Your task to perform on an android device: Search for "apple airpods pro" on walmart, select the first entry, and add it to the cart. Image 0: 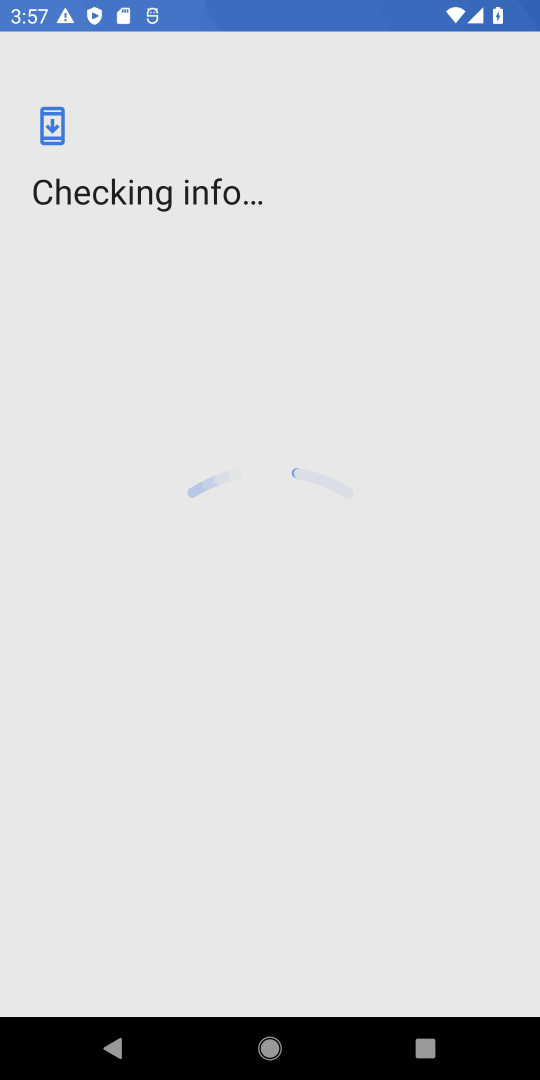
Step 0: press home button
Your task to perform on an android device: Search for "apple airpods pro" on walmart, select the first entry, and add it to the cart. Image 1: 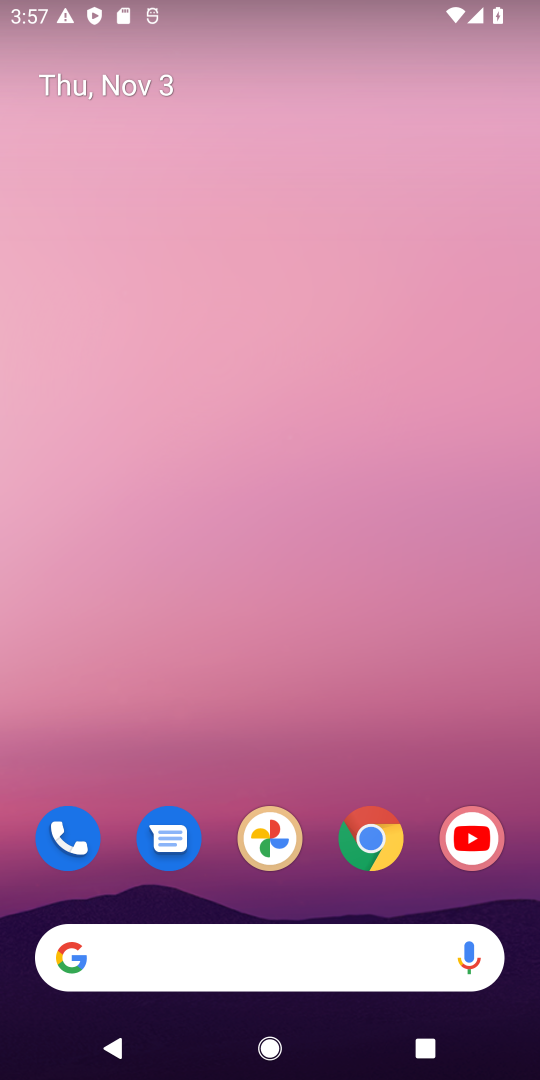
Step 1: drag from (345, 1045) to (448, 349)
Your task to perform on an android device: Search for "apple airpods pro" on walmart, select the first entry, and add it to the cart. Image 2: 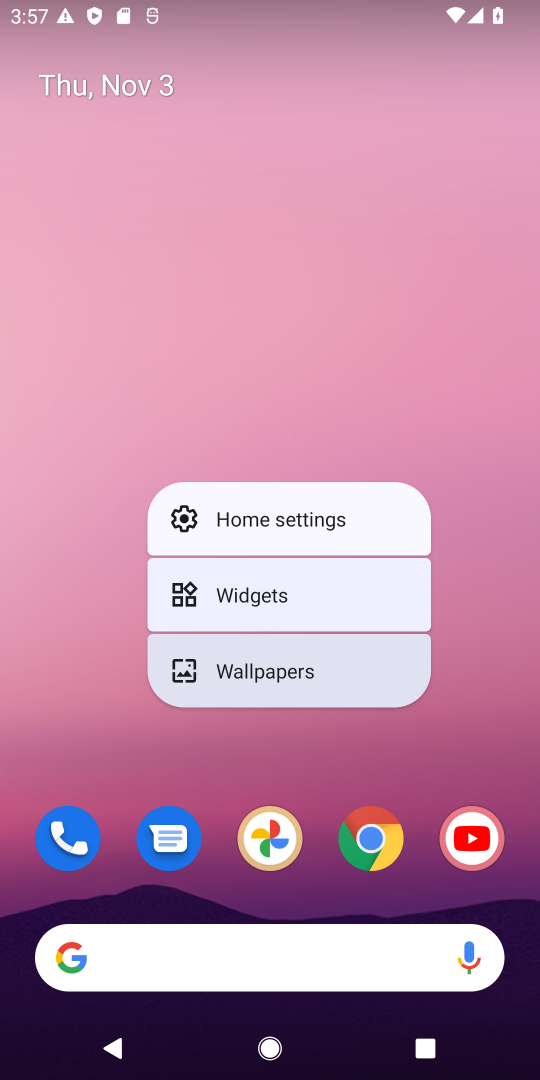
Step 2: click (409, 211)
Your task to perform on an android device: Search for "apple airpods pro" on walmart, select the first entry, and add it to the cart. Image 3: 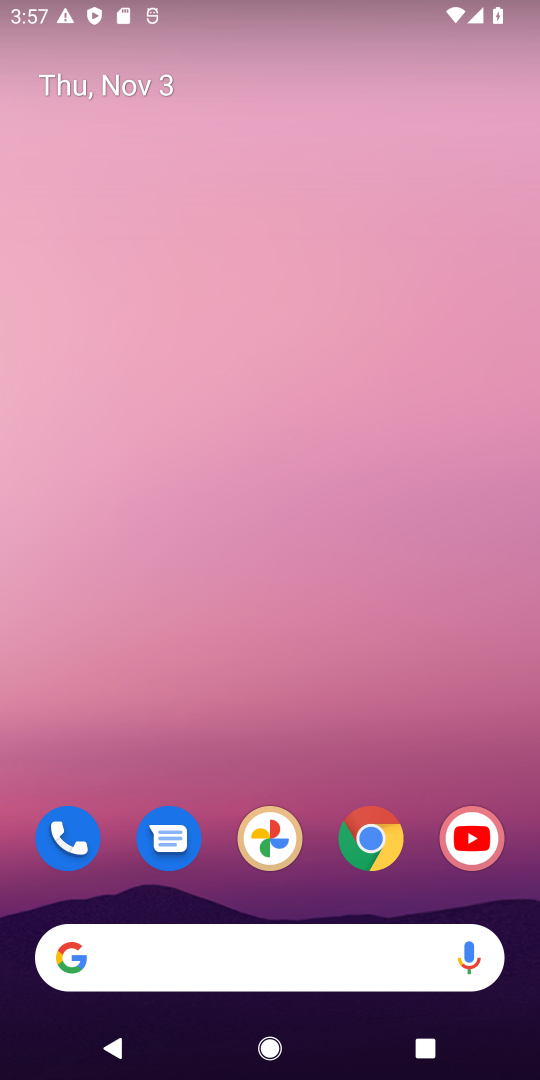
Step 3: drag from (372, 1016) to (402, 204)
Your task to perform on an android device: Search for "apple airpods pro" on walmart, select the first entry, and add it to the cart. Image 4: 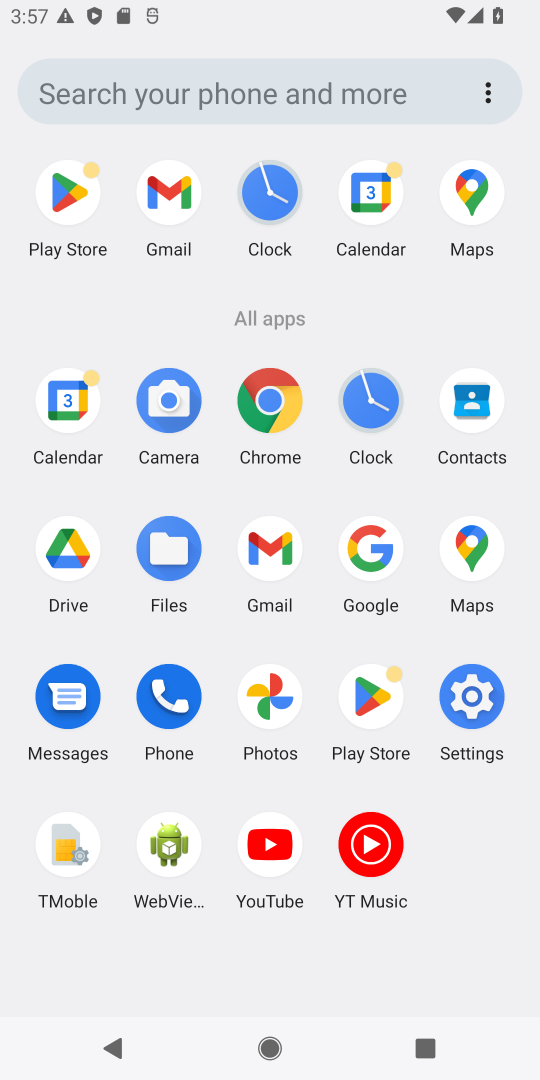
Step 4: click (281, 406)
Your task to perform on an android device: Search for "apple airpods pro" on walmart, select the first entry, and add it to the cart. Image 5: 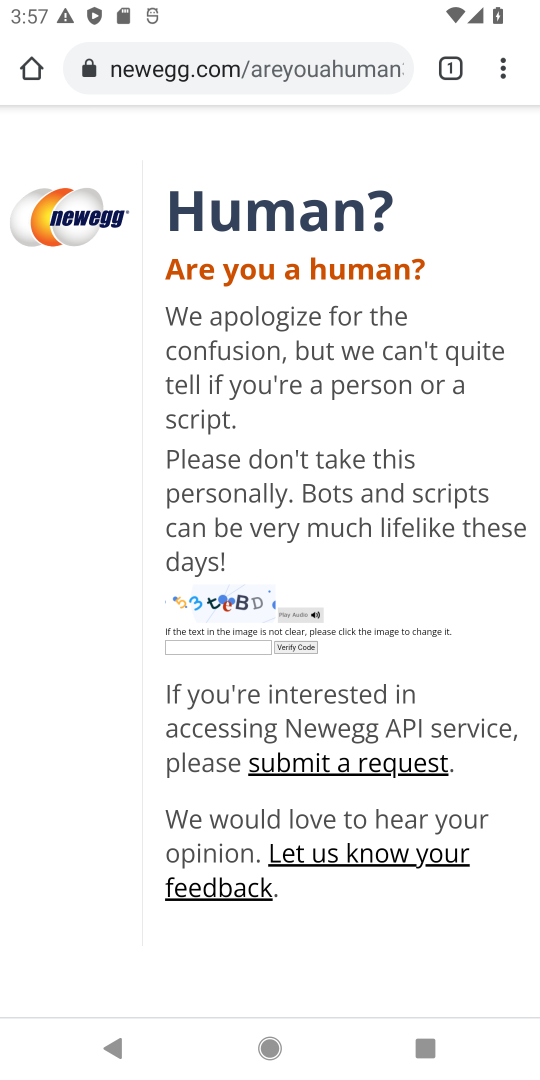
Step 5: click (190, 71)
Your task to perform on an android device: Search for "apple airpods pro" on walmart, select the first entry, and add it to the cart. Image 6: 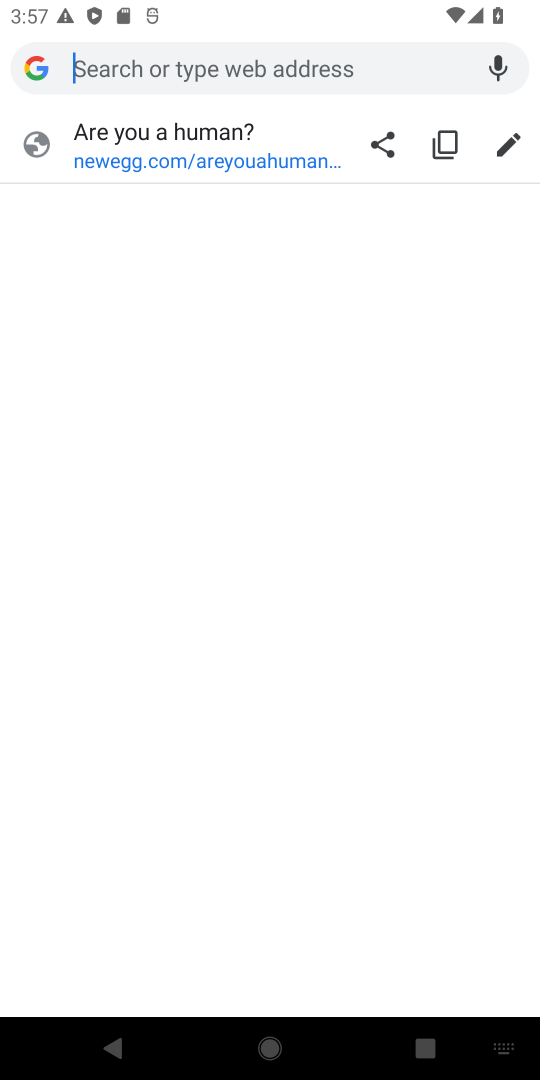
Step 6: type "walmart"
Your task to perform on an android device: Search for "apple airpods pro" on walmart, select the first entry, and add it to the cart. Image 7: 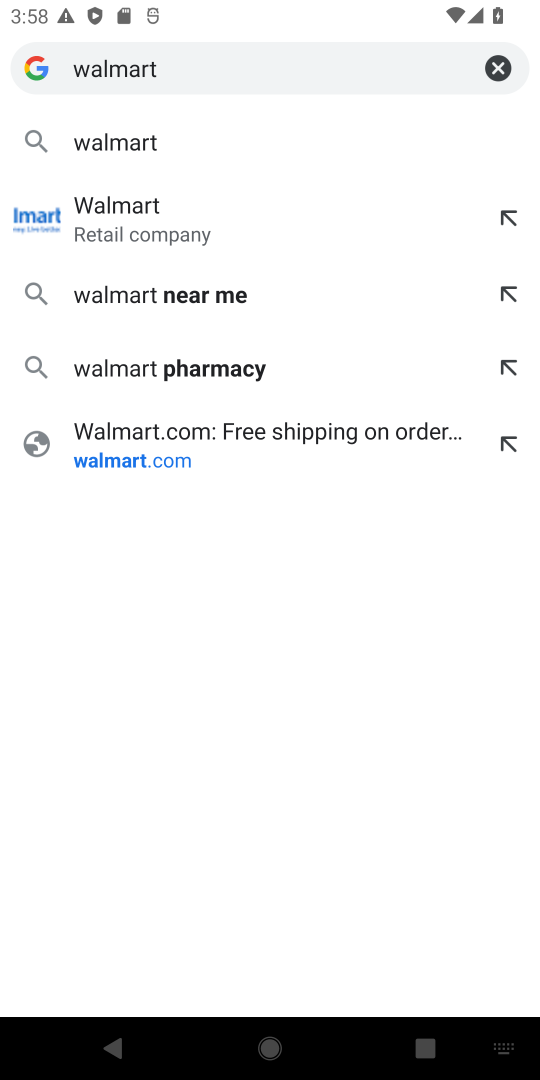
Step 7: click (137, 459)
Your task to perform on an android device: Search for "apple airpods pro" on walmart, select the first entry, and add it to the cart. Image 8: 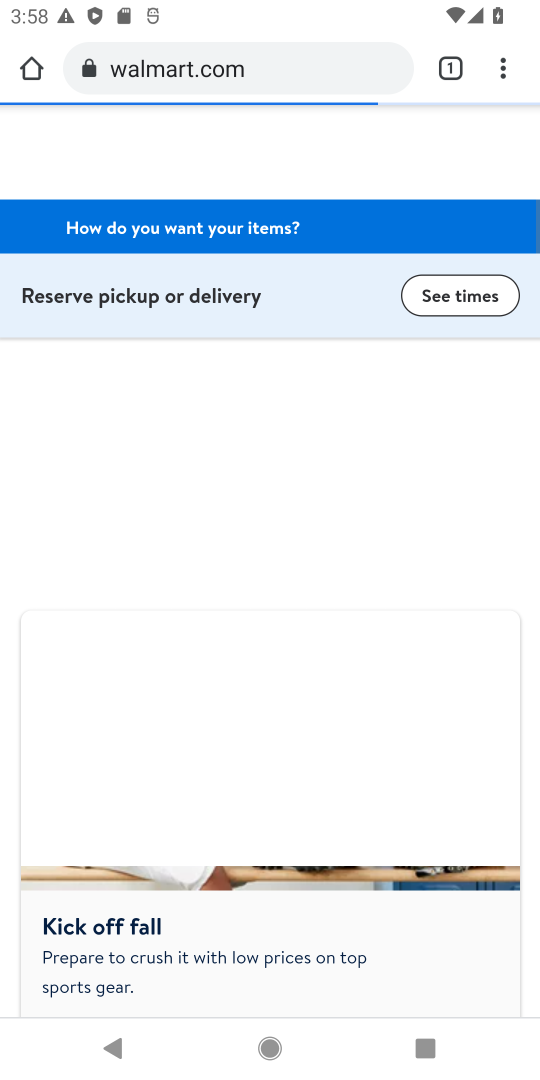
Step 8: click (261, 142)
Your task to perform on an android device: Search for "apple airpods pro" on walmart, select the first entry, and add it to the cart. Image 9: 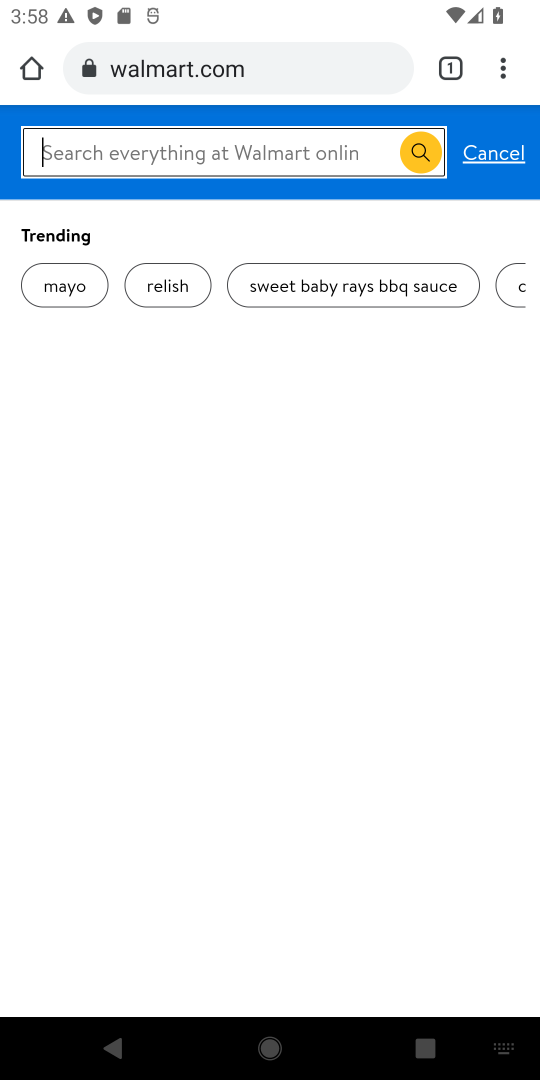
Step 9: type "apple airpods pro"
Your task to perform on an android device: Search for "apple airpods pro" on walmart, select the first entry, and add it to the cart. Image 10: 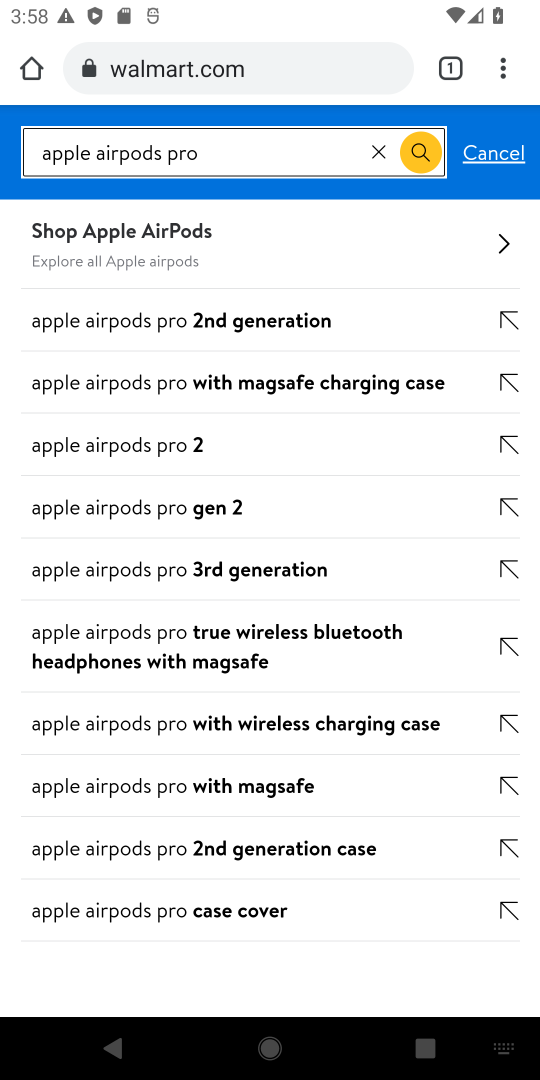
Step 10: click (426, 150)
Your task to perform on an android device: Search for "apple airpods pro" on walmart, select the first entry, and add it to the cart. Image 11: 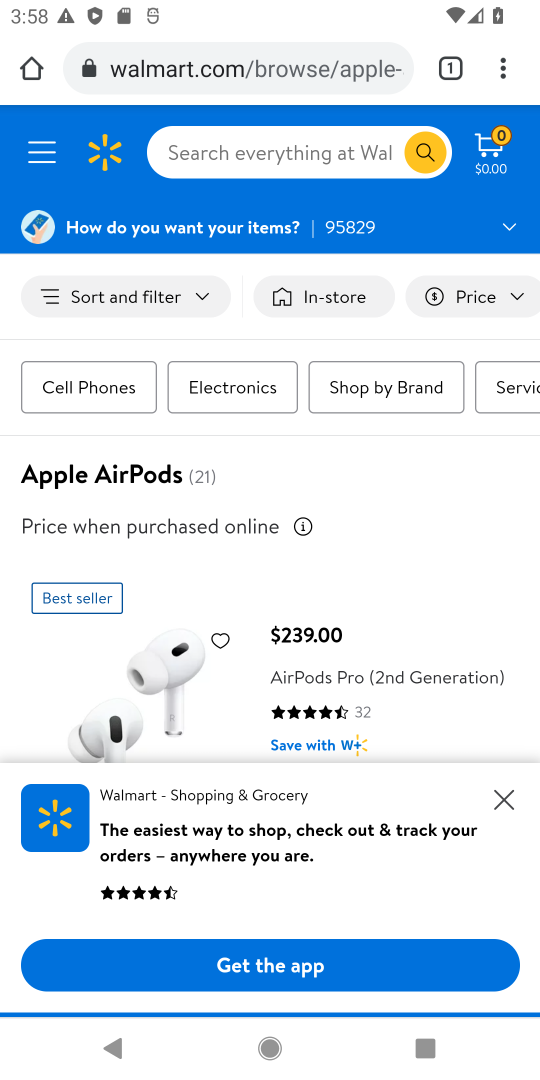
Step 11: click (500, 797)
Your task to perform on an android device: Search for "apple airpods pro" on walmart, select the first entry, and add it to the cart. Image 12: 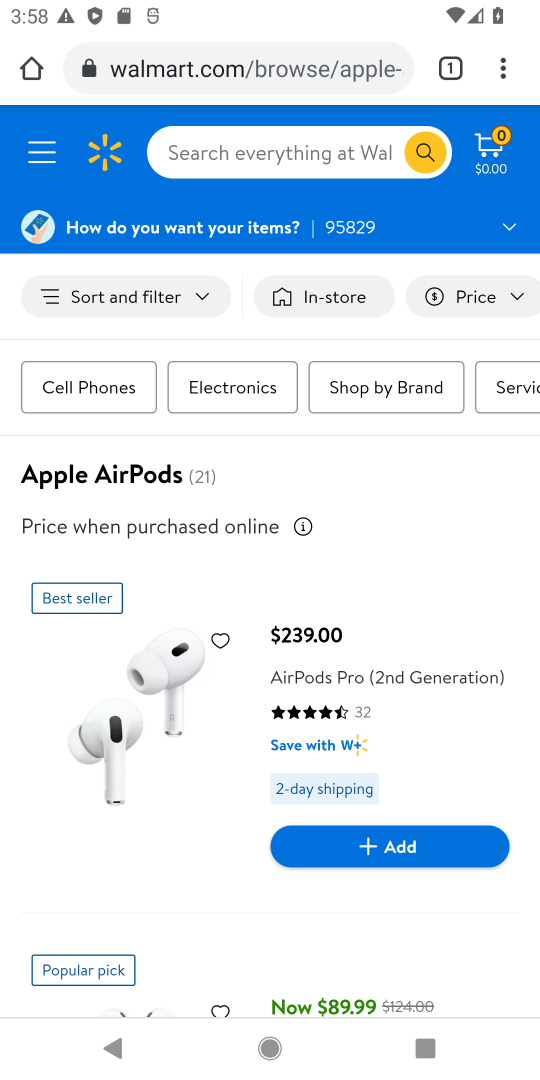
Step 12: click (161, 727)
Your task to perform on an android device: Search for "apple airpods pro" on walmart, select the first entry, and add it to the cart. Image 13: 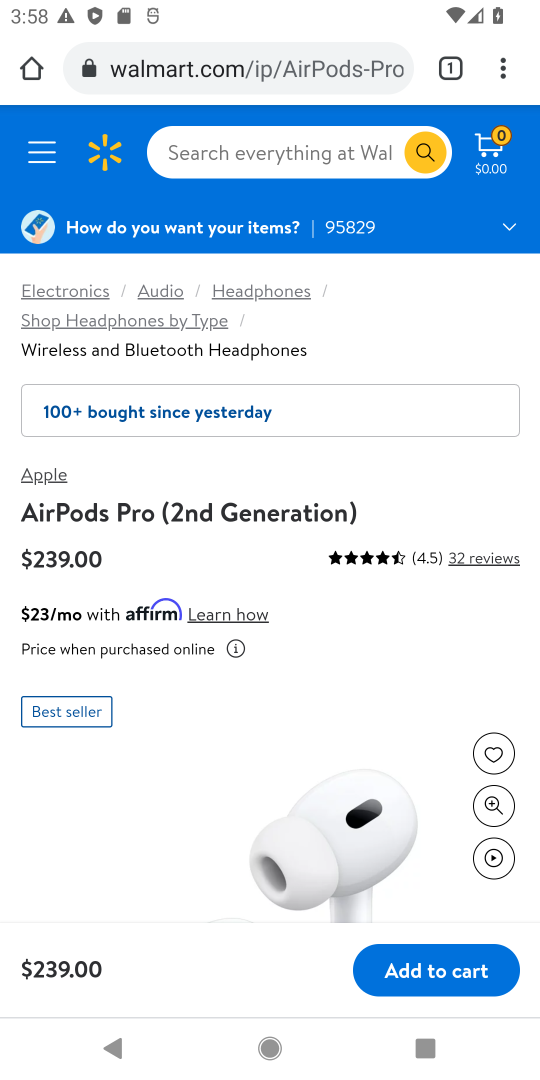
Step 13: click (436, 970)
Your task to perform on an android device: Search for "apple airpods pro" on walmart, select the first entry, and add it to the cart. Image 14: 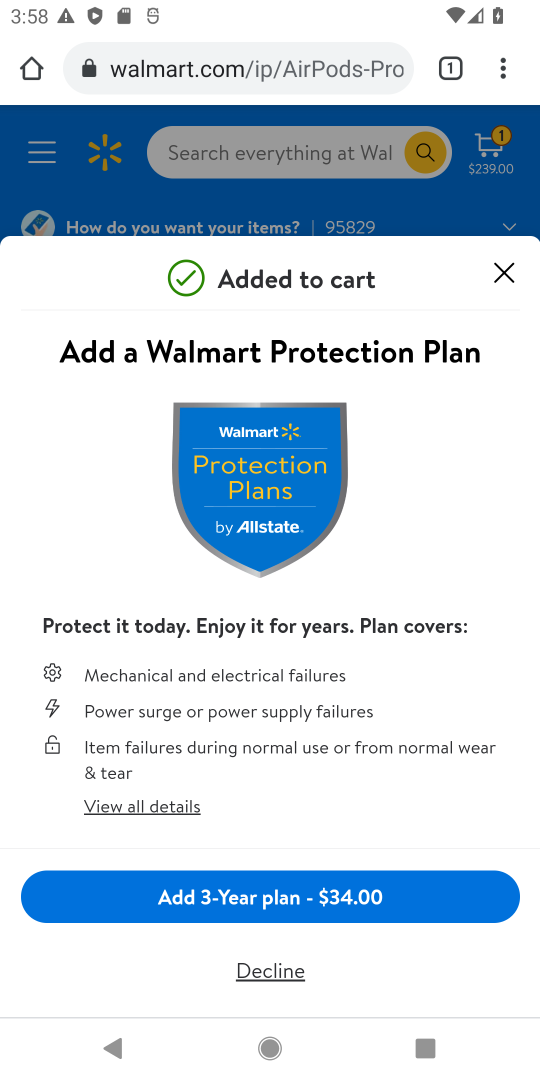
Step 14: task complete